Your task to perform on an android device: set the stopwatch Image 0: 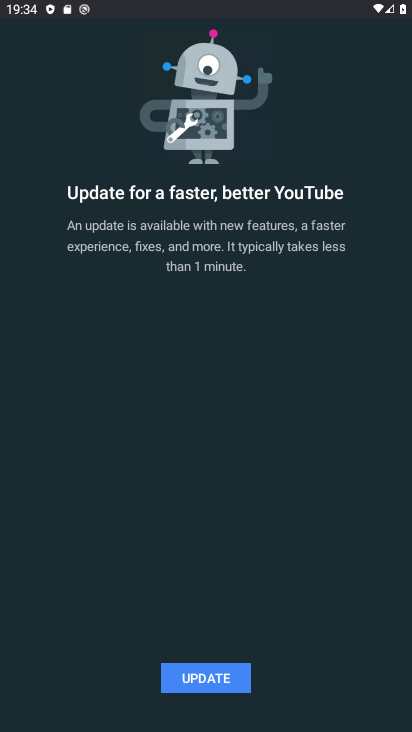
Step 0: drag from (403, 705) to (302, 70)
Your task to perform on an android device: set the stopwatch Image 1: 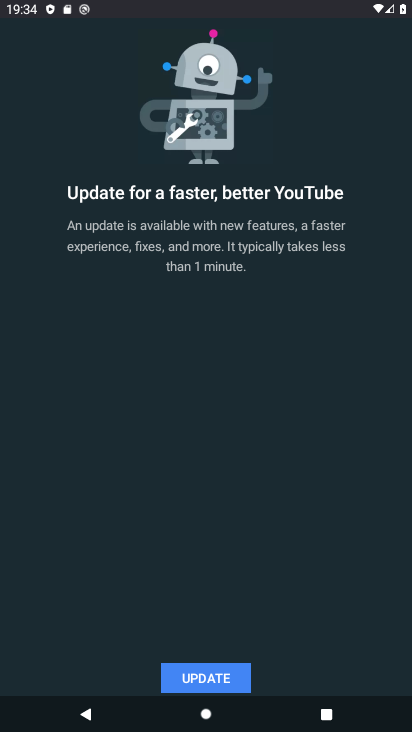
Step 1: press back button
Your task to perform on an android device: set the stopwatch Image 2: 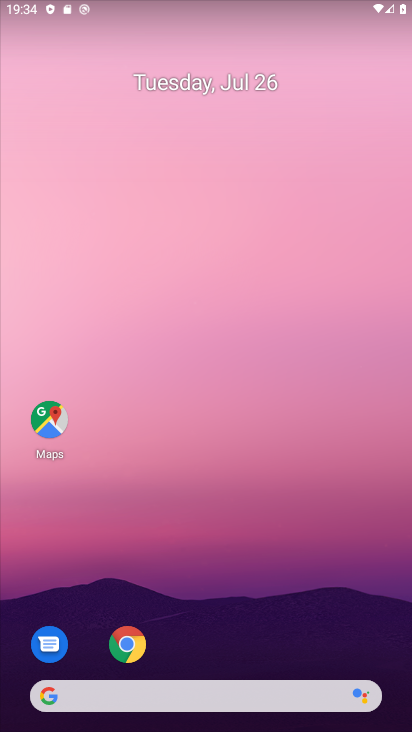
Step 2: drag from (379, 603) to (299, 3)
Your task to perform on an android device: set the stopwatch Image 3: 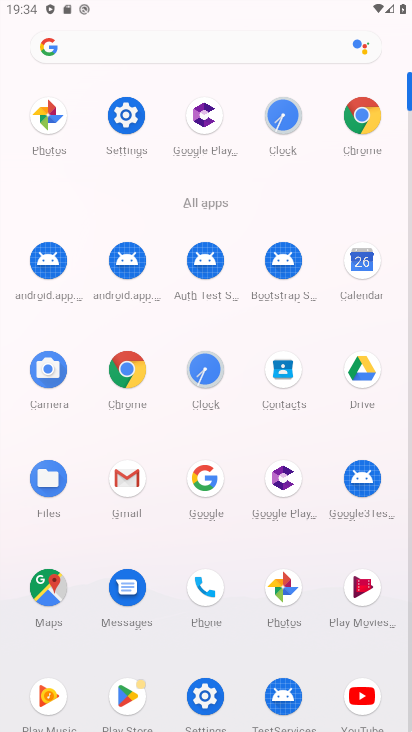
Step 3: click (283, 121)
Your task to perform on an android device: set the stopwatch Image 4: 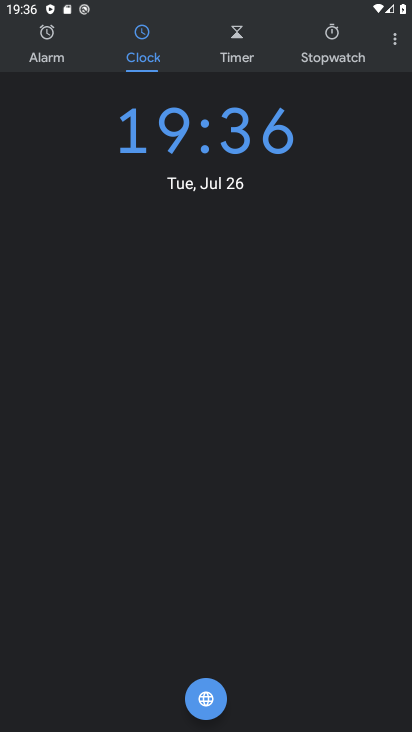
Step 4: click (334, 28)
Your task to perform on an android device: set the stopwatch Image 5: 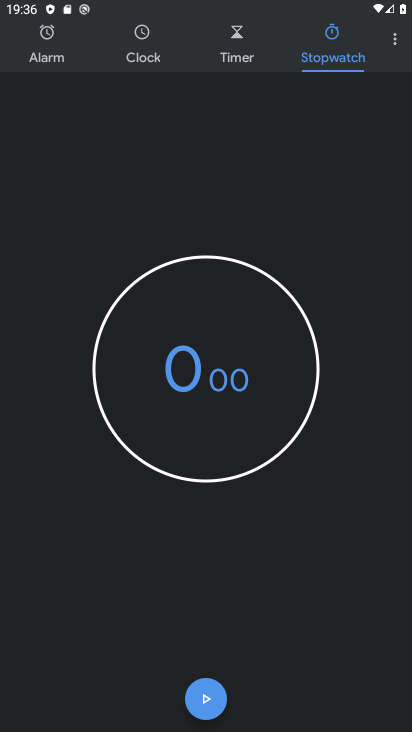
Step 5: click (195, 691)
Your task to perform on an android device: set the stopwatch Image 6: 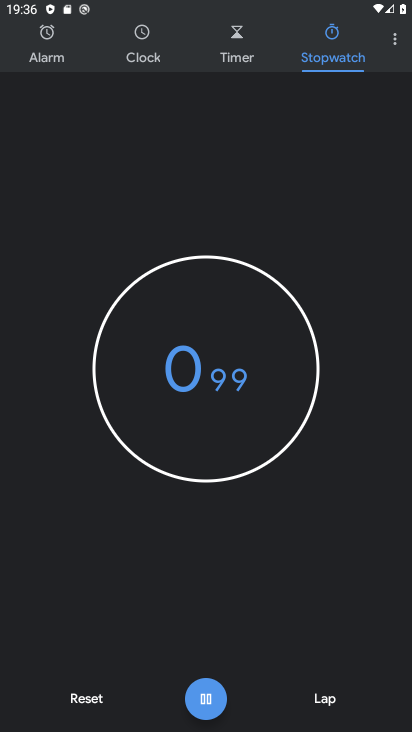
Step 6: task complete